Your task to perform on an android device: Go to location settings Image 0: 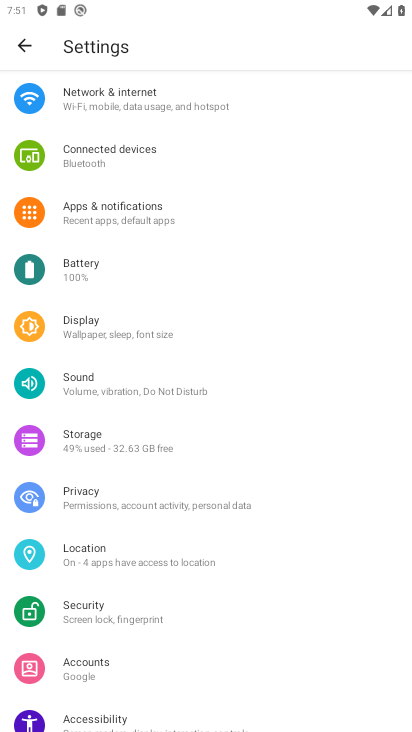
Step 0: press home button
Your task to perform on an android device: Go to location settings Image 1: 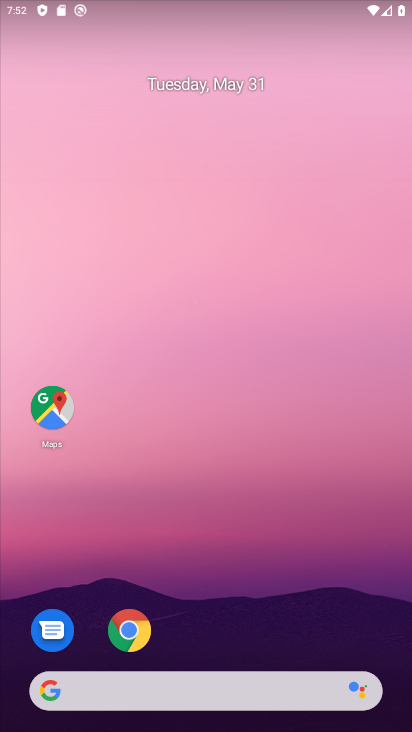
Step 1: drag from (244, 534) to (241, 83)
Your task to perform on an android device: Go to location settings Image 2: 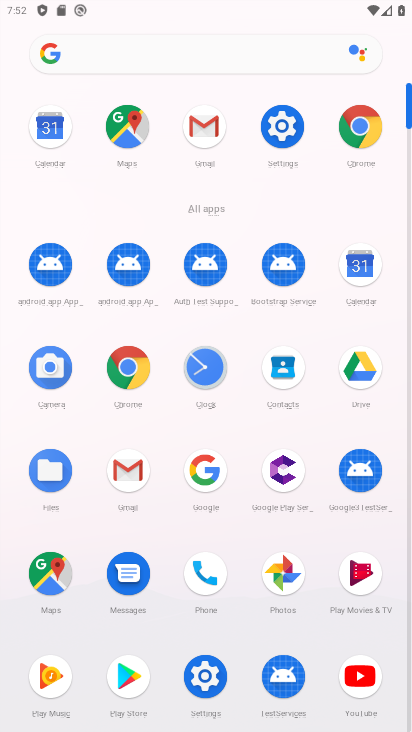
Step 2: click (282, 138)
Your task to perform on an android device: Go to location settings Image 3: 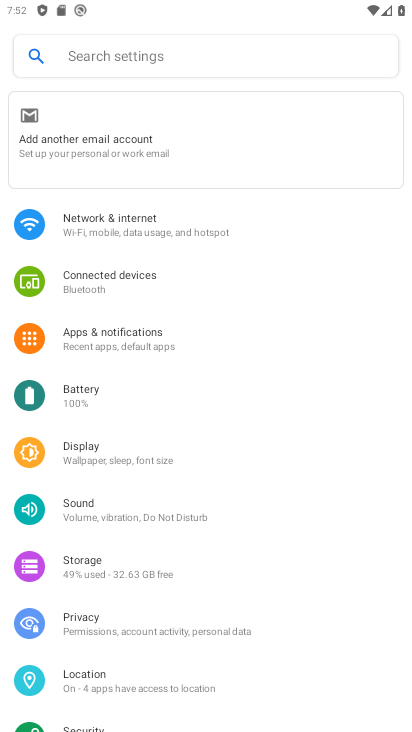
Step 3: click (150, 681)
Your task to perform on an android device: Go to location settings Image 4: 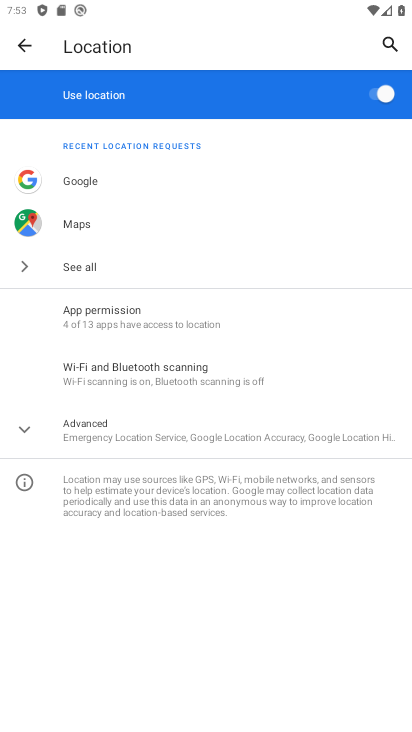
Step 4: task complete